Your task to perform on an android device: change alarm snooze length Image 0: 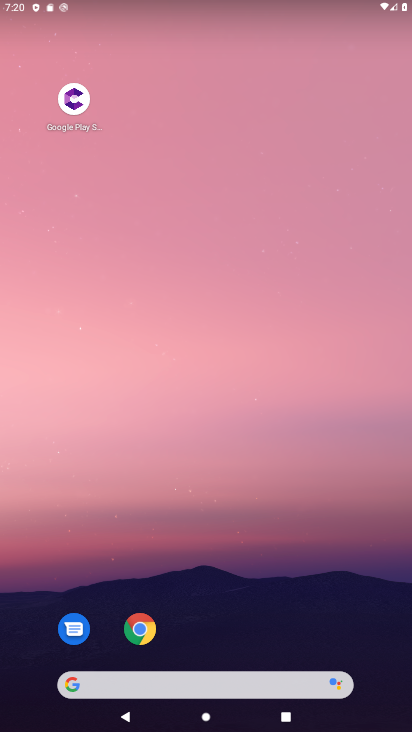
Step 0: drag from (354, 623) to (360, 52)
Your task to perform on an android device: change alarm snooze length Image 1: 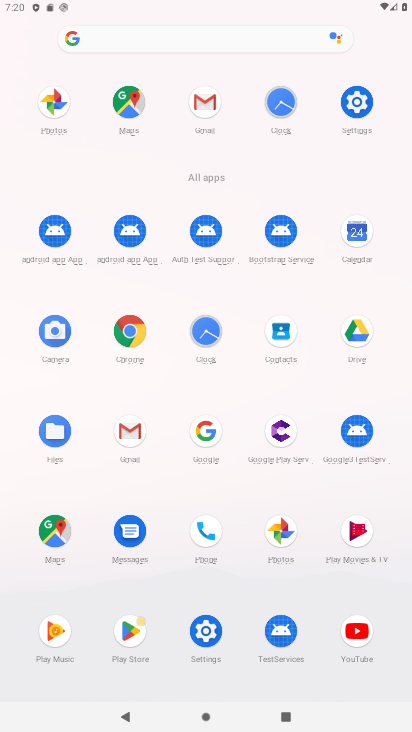
Step 1: click (212, 334)
Your task to perform on an android device: change alarm snooze length Image 2: 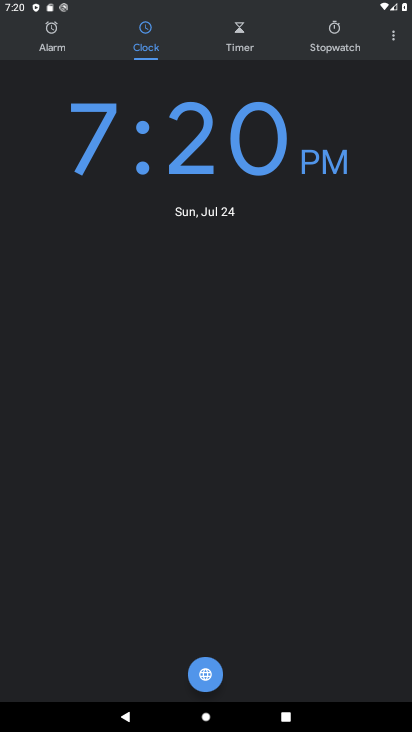
Step 2: click (396, 37)
Your task to perform on an android device: change alarm snooze length Image 3: 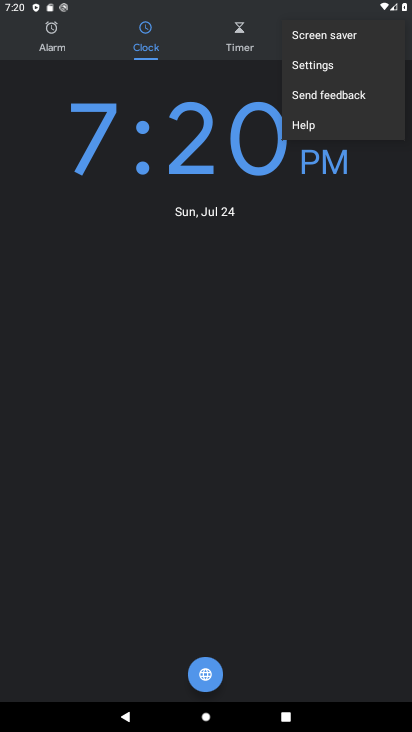
Step 3: click (341, 61)
Your task to perform on an android device: change alarm snooze length Image 4: 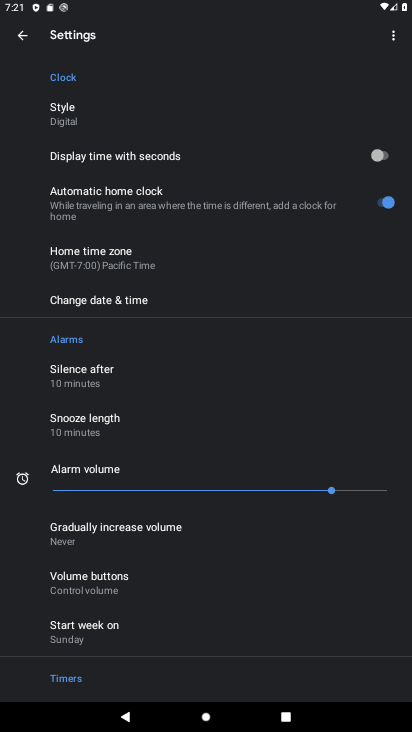
Step 4: drag from (349, 372) to (356, 327)
Your task to perform on an android device: change alarm snooze length Image 5: 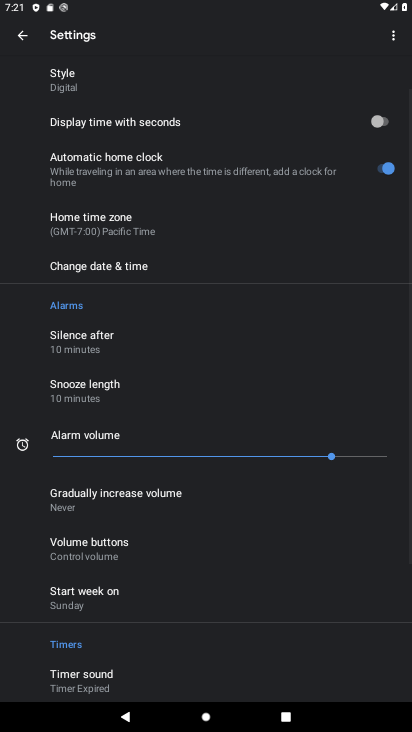
Step 5: drag from (354, 379) to (357, 325)
Your task to perform on an android device: change alarm snooze length Image 6: 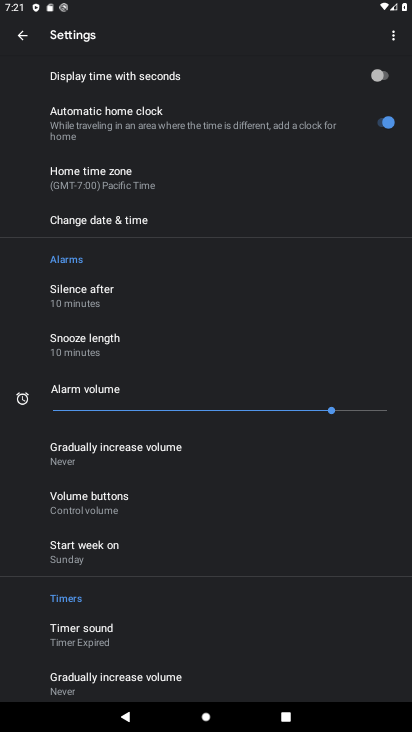
Step 6: drag from (370, 417) to (380, 352)
Your task to perform on an android device: change alarm snooze length Image 7: 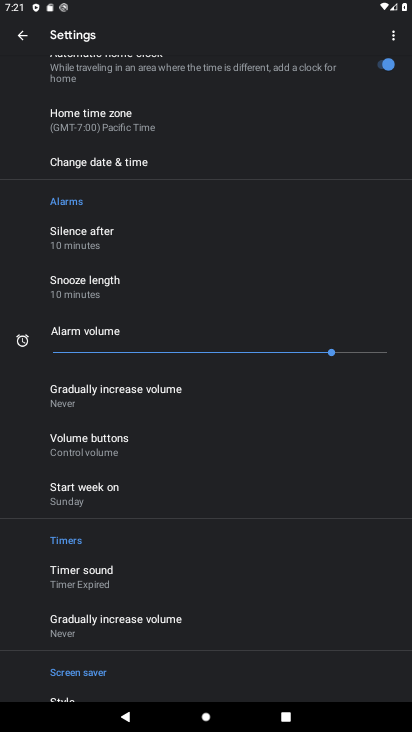
Step 7: drag from (375, 406) to (376, 335)
Your task to perform on an android device: change alarm snooze length Image 8: 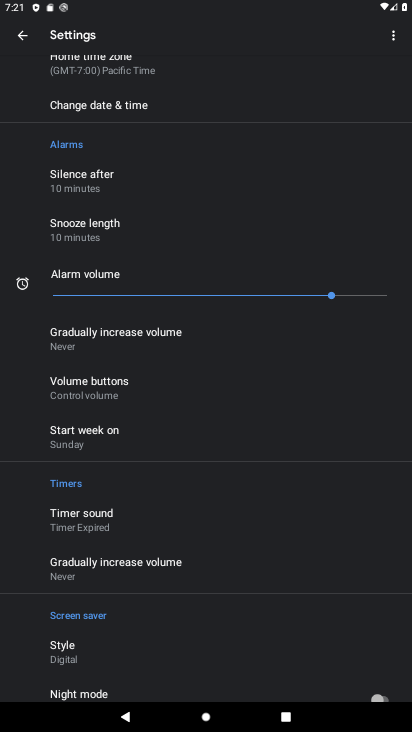
Step 8: drag from (364, 400) to (365, 317)
Your task to perform on an android device: change alarm snooze length Image 9: 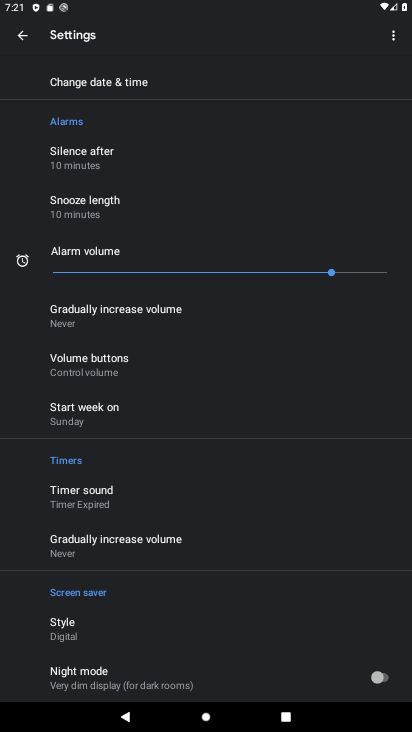
Step 9: drag from (356, 418) to (354, 334)
Your task to perform on an android device: change alarm snooze length Image 10: 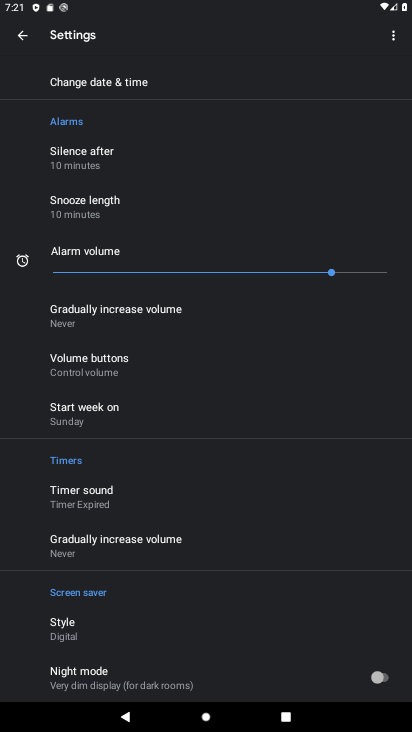
Step 10: drag from (393, 200) to (392, 288)
Your task to perform on an android device: change alarm snooze length Image 11: 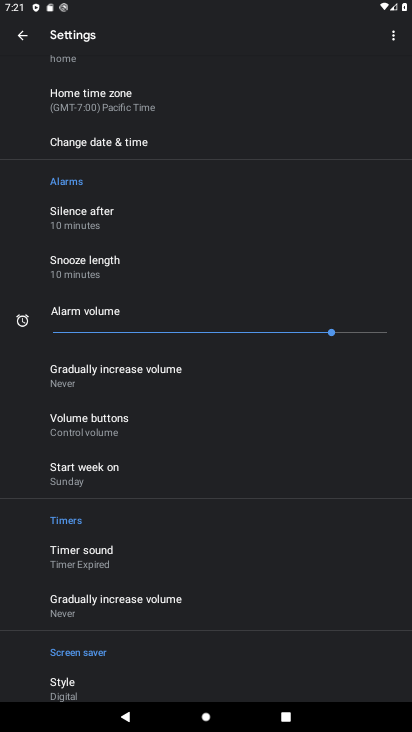
Step 11: drag from (276, 213) to (293, 454)
Your task to perform on an android device: change alarm snooze length Image 12: 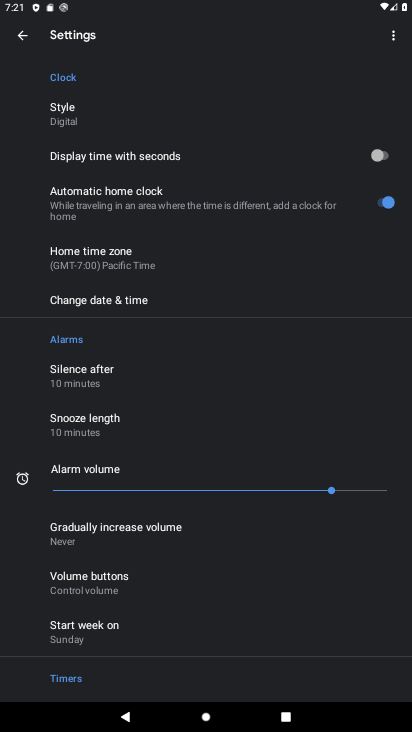
Step 12: click (157, 432)
Your task to perform on an android device: change alarm snooze length Image 13: 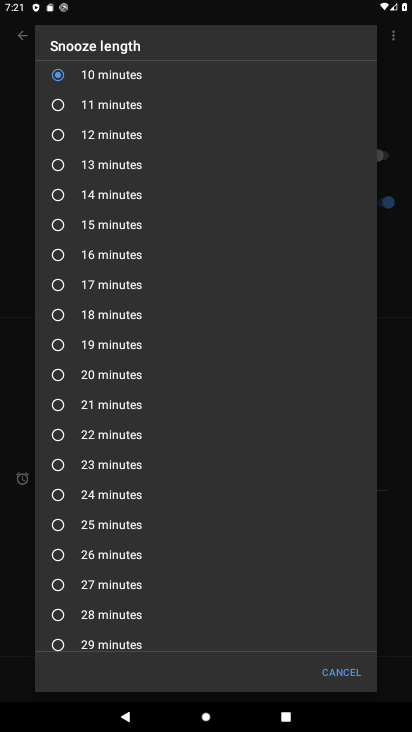
Step 13: click (136, 432)
Your task to perform on an android device: change alarm snooze length Image 14: 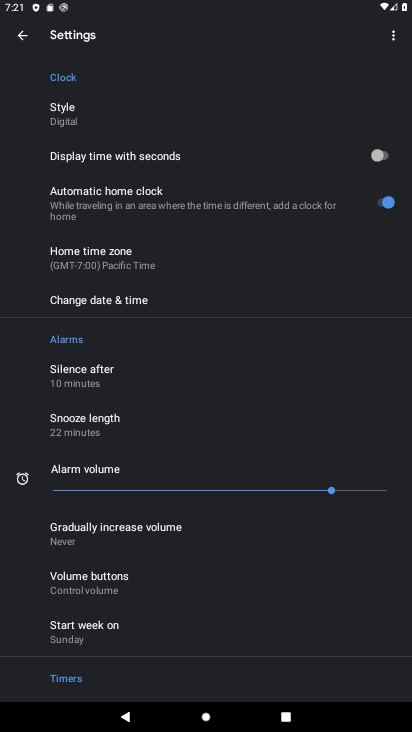
Step 14: task complete